Your task to perform on an android device: open app "Airtel Thanks" (install if not already installed) Image 0: 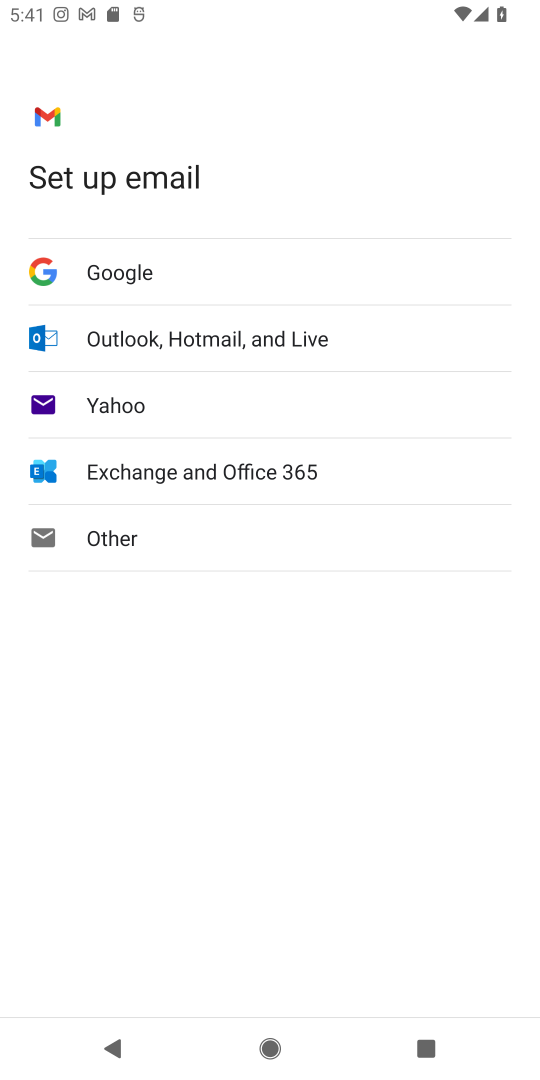
Step 0: press home button
Your task to perform on an android device: open app "Airtel Thanks" (install if not already installed) Image 1: 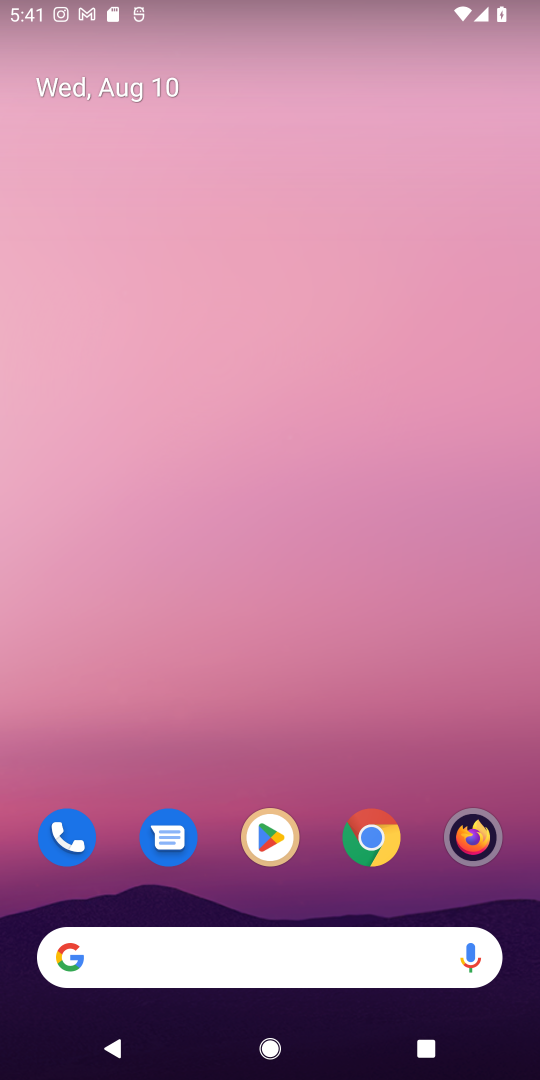
Step 1: click (264, 836)
Your task to perform on an android device: open app "Airtel Thanks" (install if not already installed) Image 2: 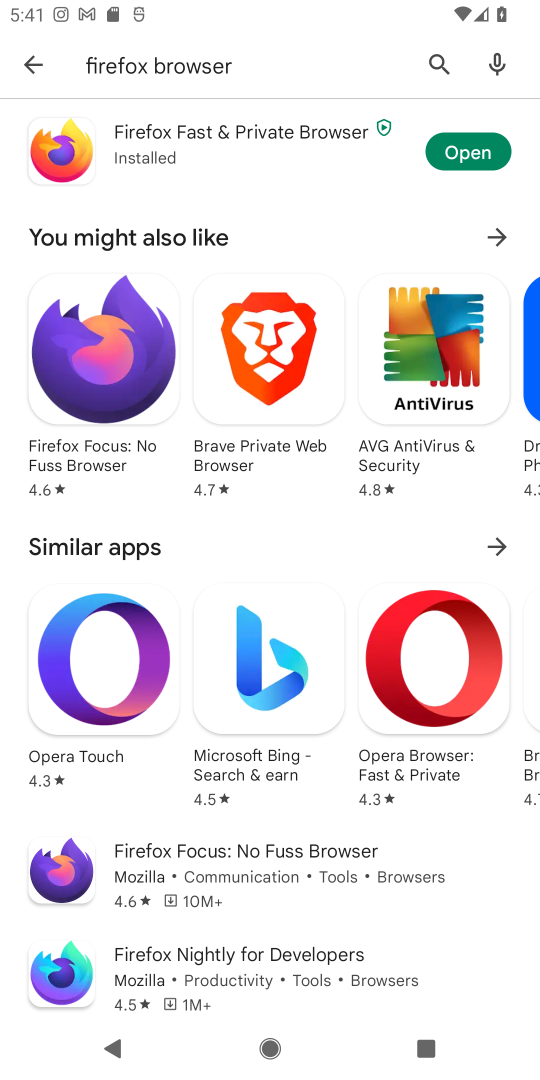
Step 2: click (424, 53)
Your task to perform on an android device: open app "Airtel Thanks" (install if not already installed) Image 3: 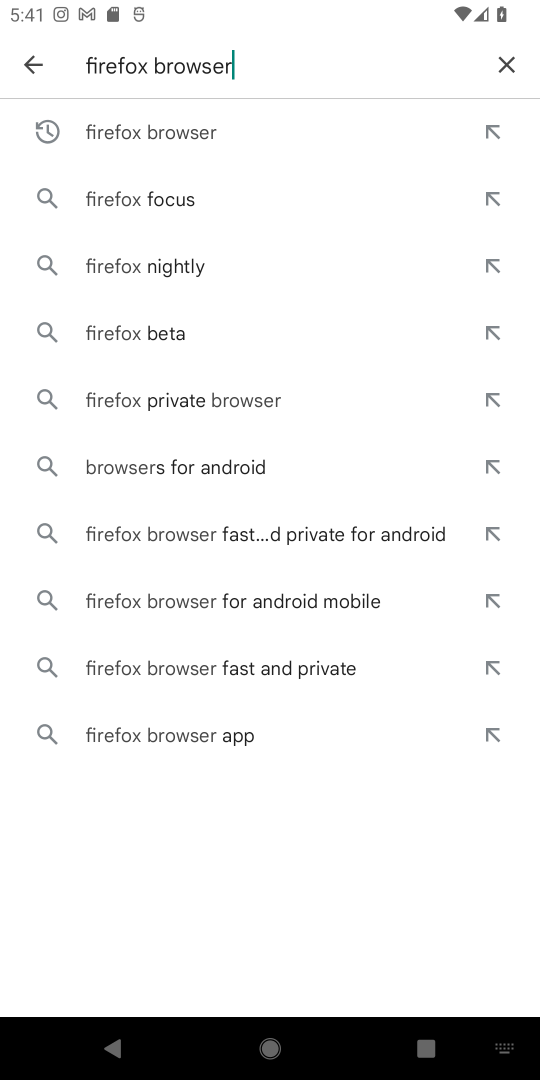
Step 3: click (496, 57)
Your task to perform on an android device: open app "Airtel Thanks" (install if not already installed) Image 4: 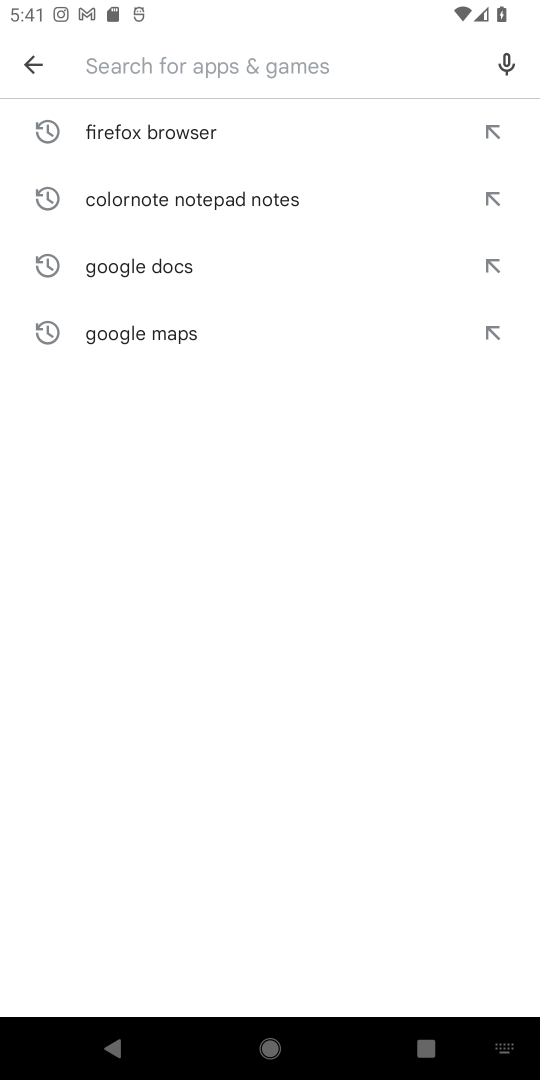
Step 4: type "Airtel Thanks"
Your task to perform on an android device: open app "Airtel Thanks" (install if not already installed) Image 5: 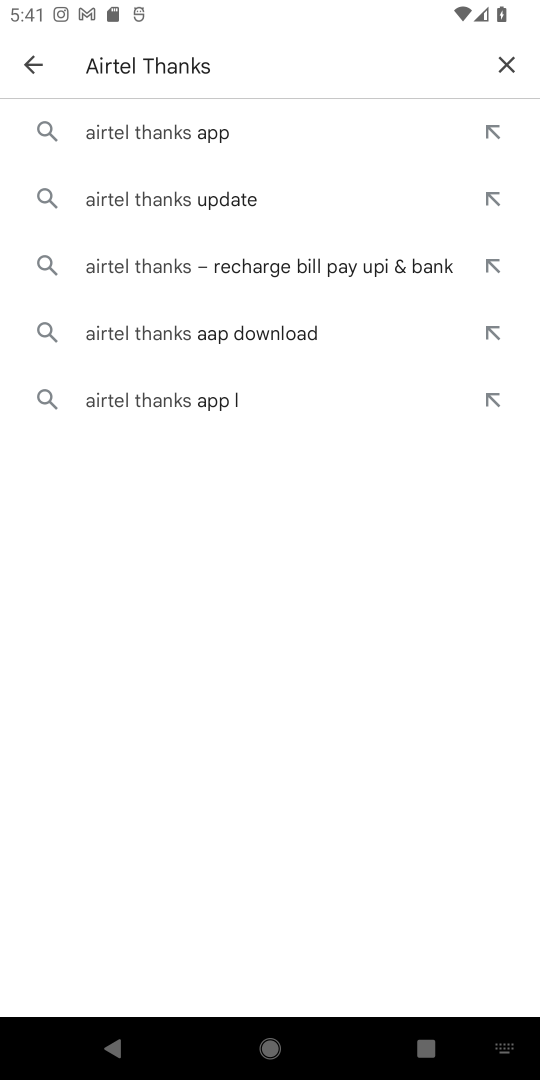
Step 5: click (173, 131)
Your task to perform on an android device: open app "Airtel Thanks" (install if not already installed) Image 6: 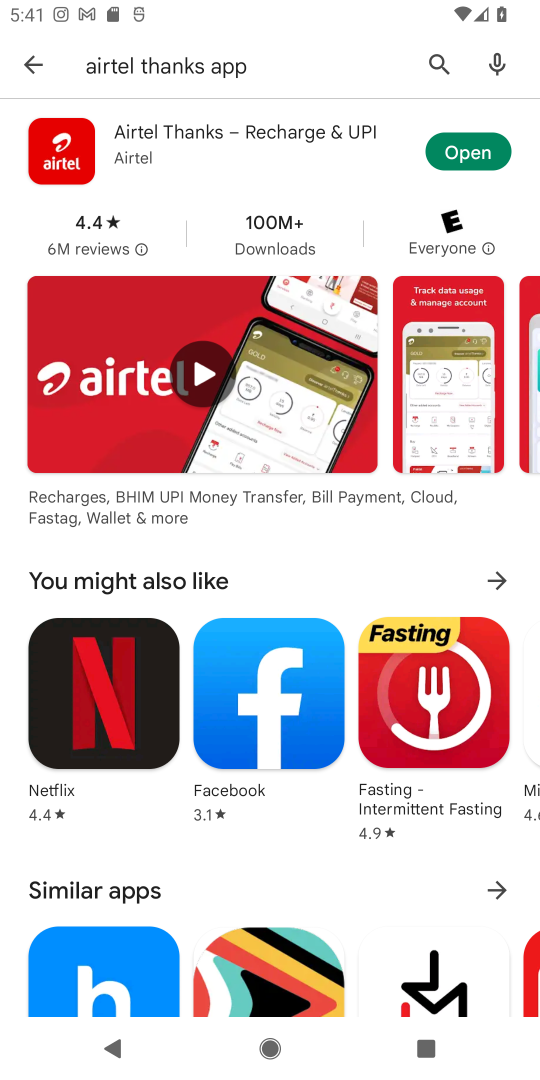
Step 6: click (492, 147)
Your task to perform on an android device: open app "Airtel Thanks" (install if not already installed) Image 7: 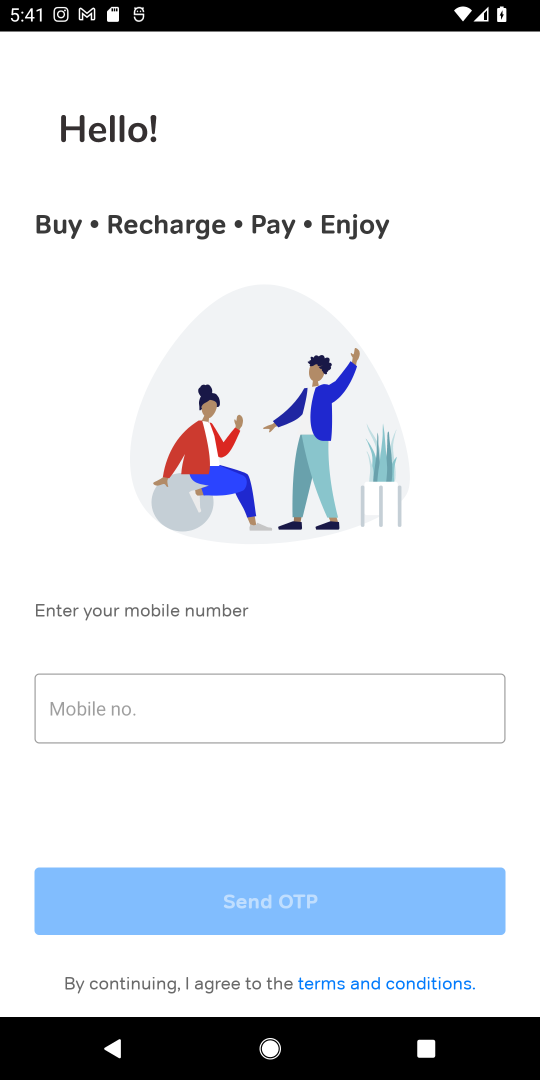
Step 7: task complete